Your task to perform on an android device: change the clock display to digital Image 0: 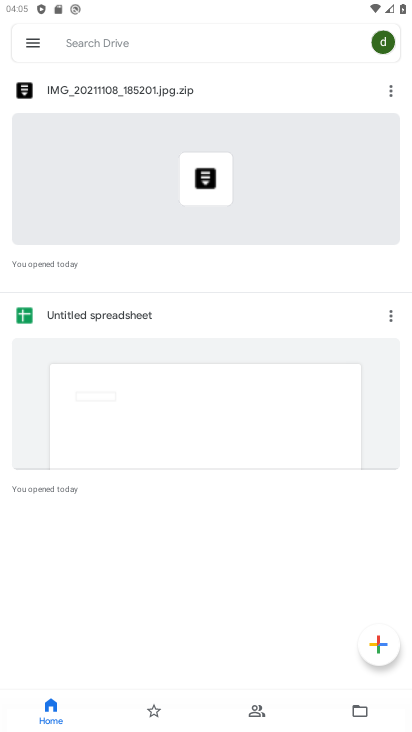
Step 0: press home button
Your task to perform on an android device: change the clock display to digital Image 1: 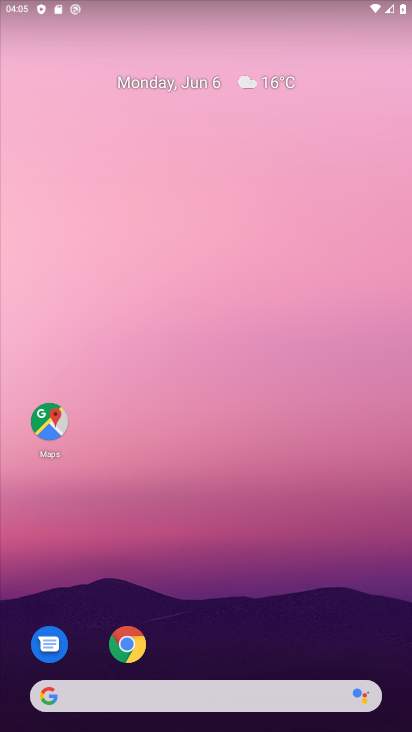
Step 1: drag from (399, 707) to (373, 58)
Your task to perform on an android device: change the clock display to digital Image 2: 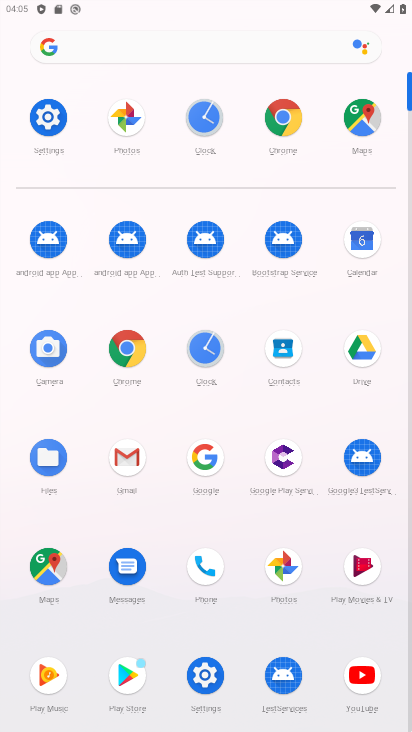
Step 2: click (46, 117)
Your task to perform on an android device: change the clock display to digital Image 3: 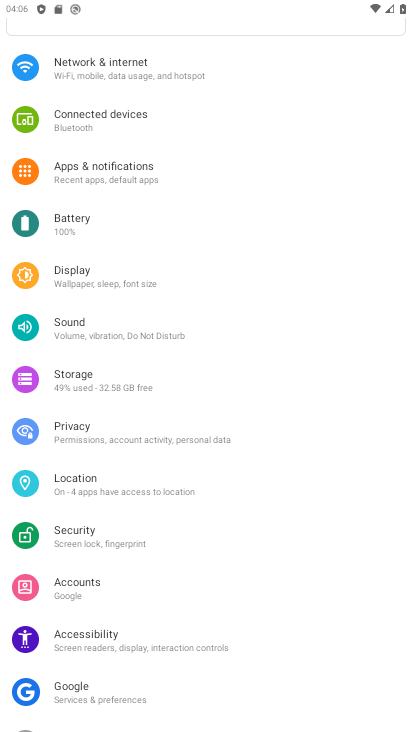
Step 3: click (98, 266)
Your task to perform on an android device: change the clock display to digital Image 4: 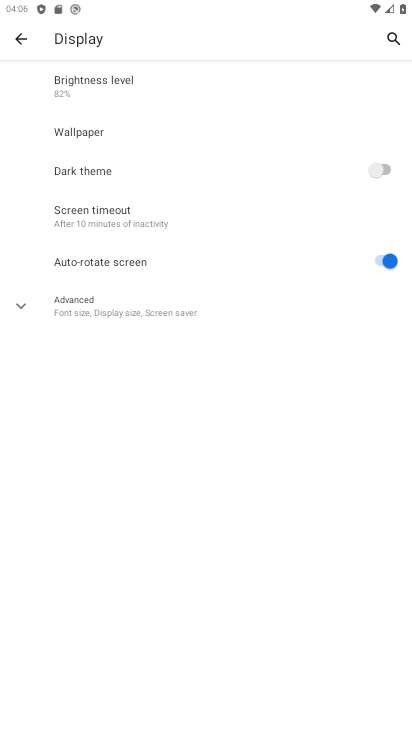
Step 4: click (27, 311)
Your task to perform on an android device: change the clock display to digital Image 5: 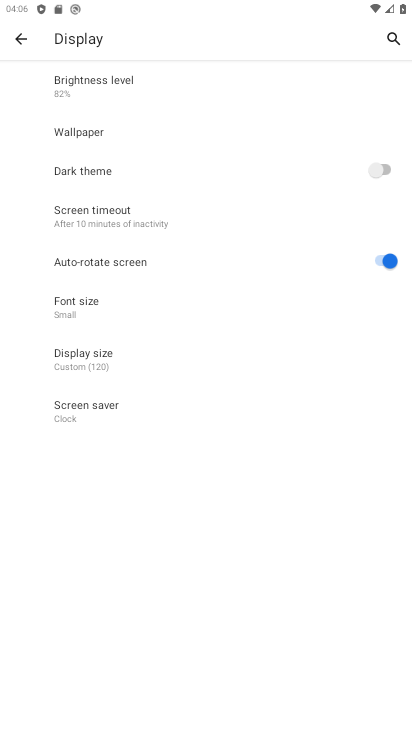
Step 5: task complete